Your task to perform on an android device: Go to CNN.com Image 0: 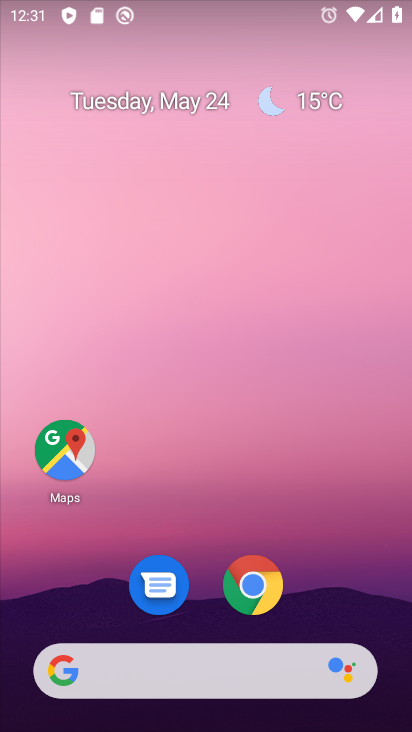
Step 0: click (228, 686)
Your task to perform on an android device: Go to CNN.com Image 1: 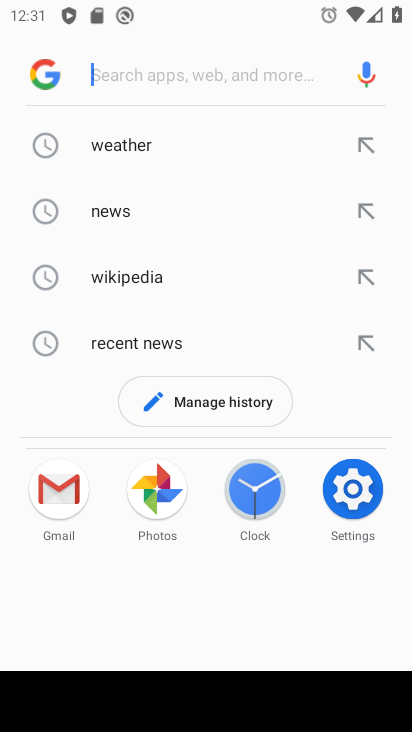
Step 1: type "cnn.com"
Your task to perform on an android device: Go to CNN.com Image 2: 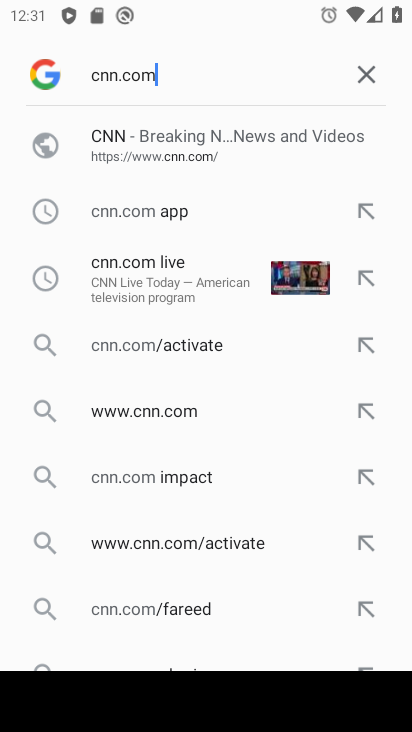
Step 2: click (113, 151)
Your task to perform on an android device: Go to CNN.com Image 3: 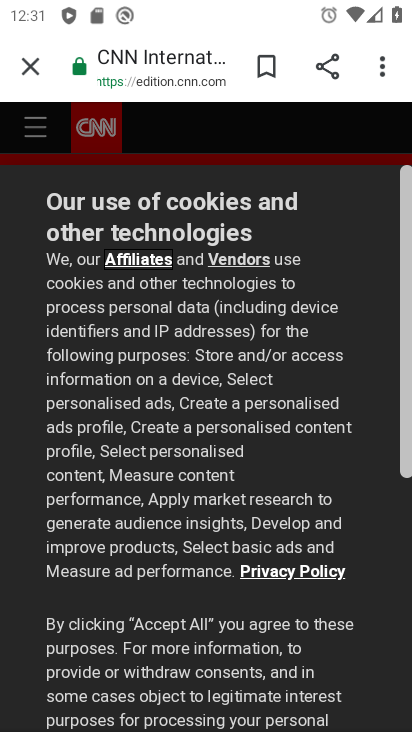
Step 3: task complete